Your task to perform on an android device: How do I get to the nearest IKEA? Image 0: 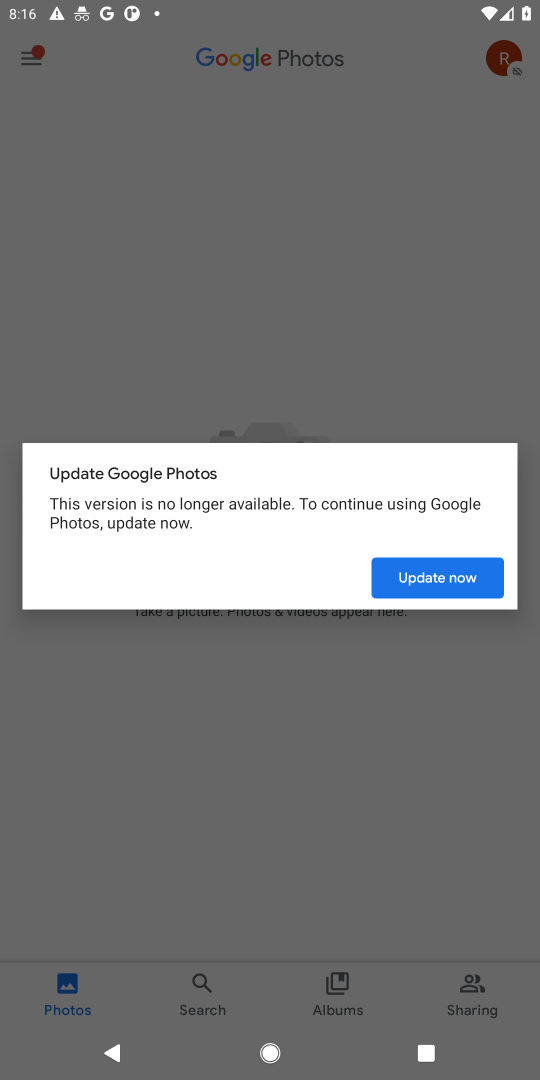
Step 0: press home button
Your task to perform on an android device: How do I get to the nearest IKEA? Image 1: 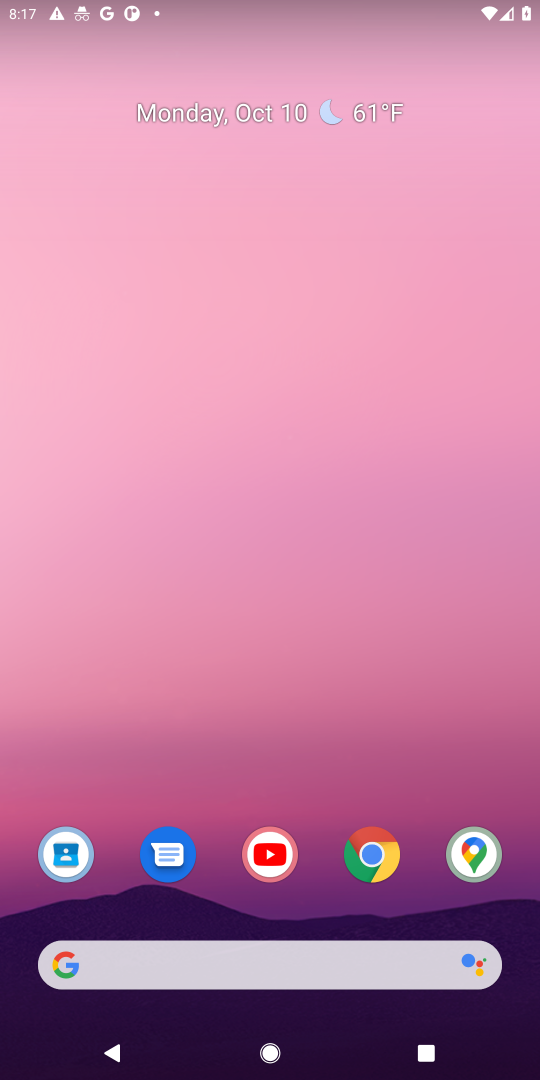
Step 1: click (368, 845)
Your task to perform on an android device: How do I get to the nearest IKEA? Image 2: 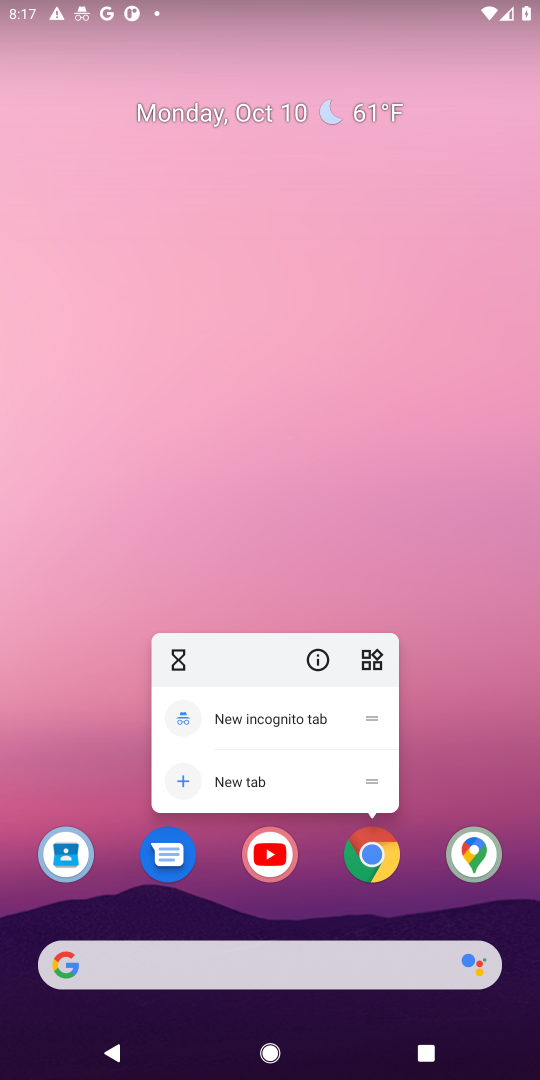
Step 2: click (364, 846)
Your task to perform on an android device: How do I get to the nearest IKEA? Image 3: 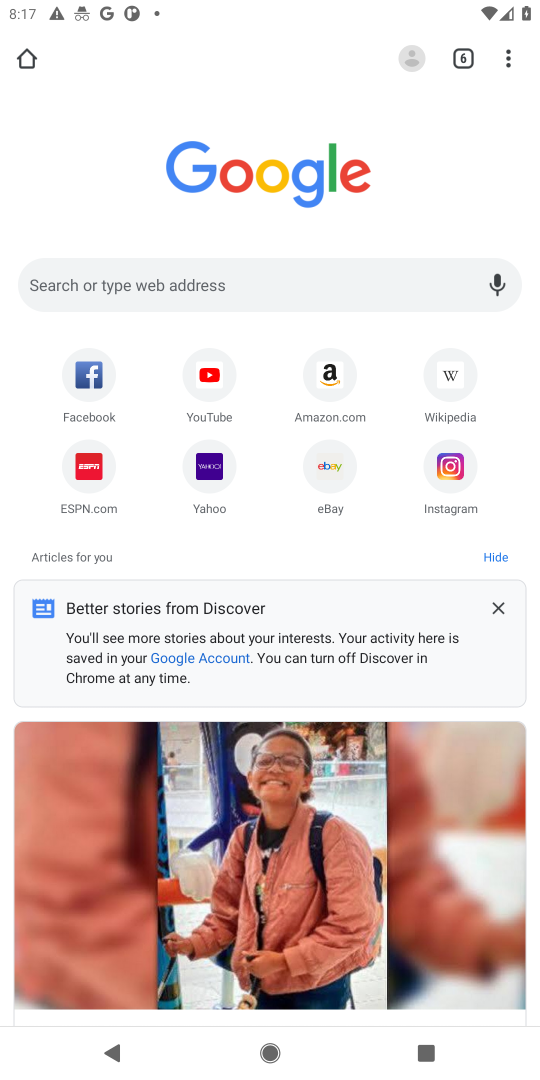
Step 3: click (299, 281)
Your task to perform on an android device: How do I get to the nearest IKEA? Image 4: 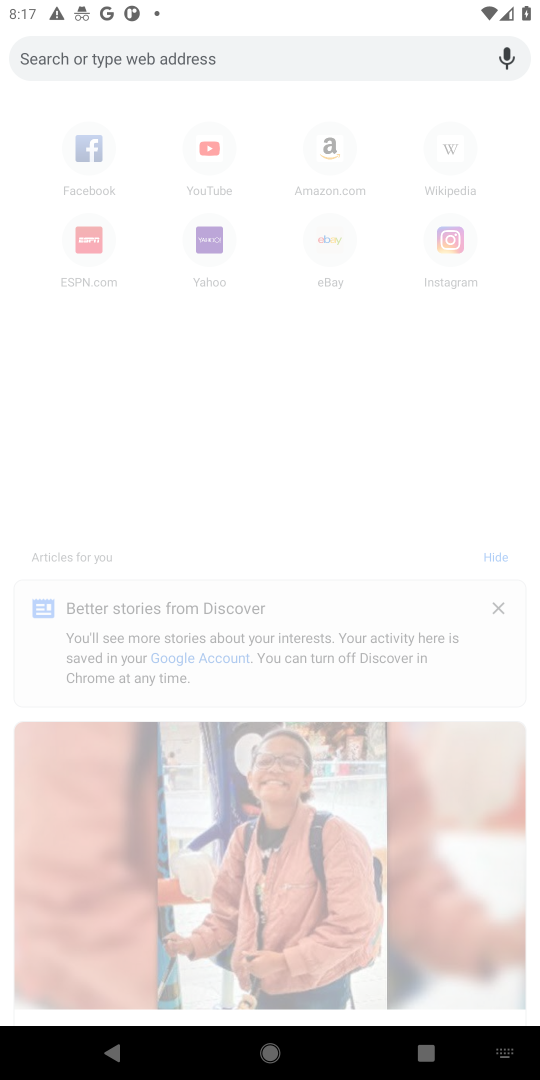
Step 4: type " nearest IKEA"
Your task to perform on an android device: How do I get to the nearest IKEA? Image 5: 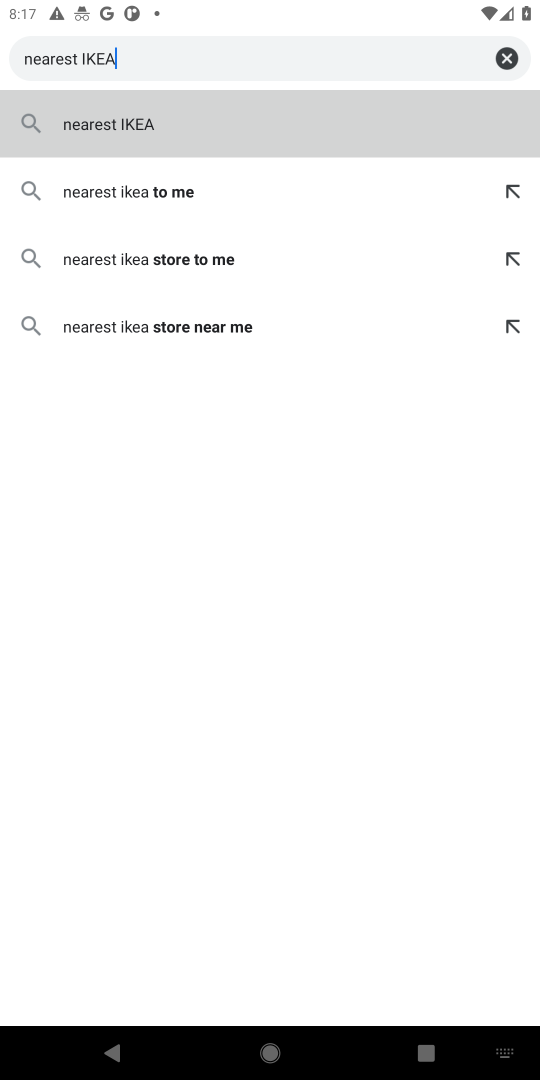
Step 5: click (116, 120)
Your task to perform on an android device: How do I get to the nearest IKEA? Image 6: 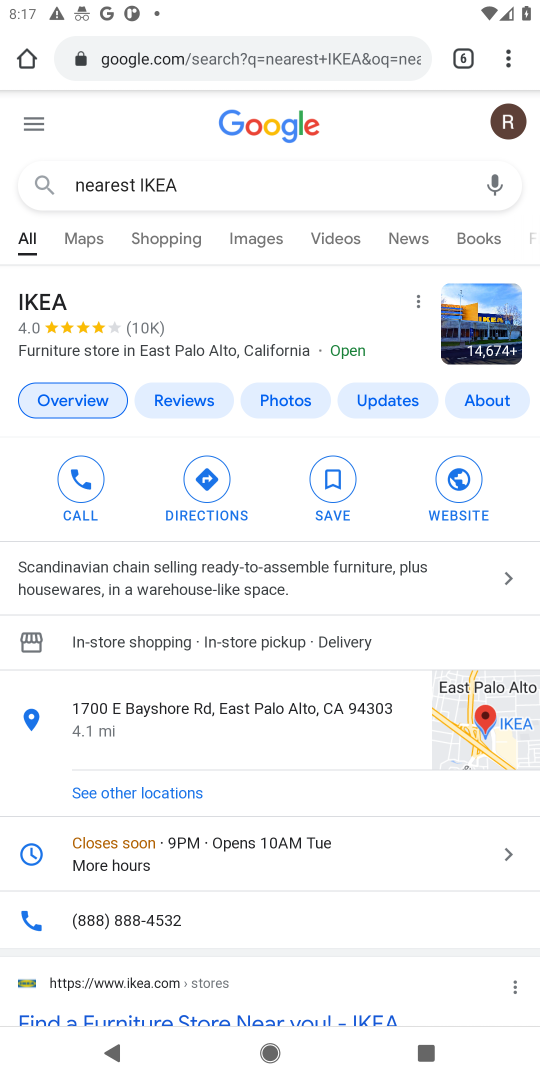
Step 6: task complete